Your task to perform on an android device: turn off javascript in the chrome app Image 0: 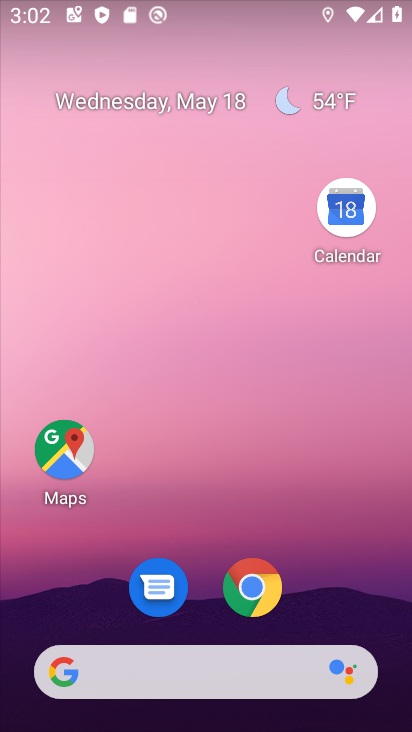
Step 0: drag from (185, 616) to (211, 97)
Your task to perform on an android device: turn off javascript in the chrome app Image 1: 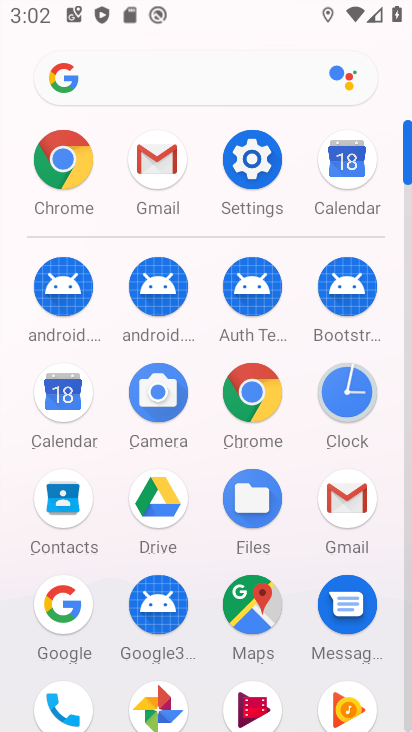
Step 1: click (244, 384)
Your task to perform on an android device: turn off javascript in the chrome app Image 2: 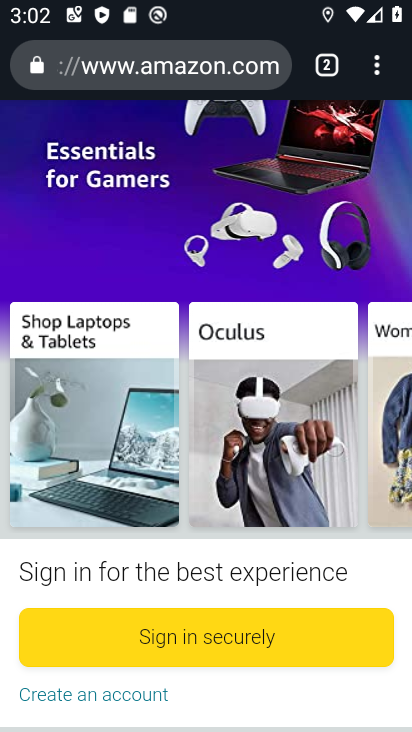
Step 2: click (373, 89)
Your task to perform on an android device: turn off javascript in the chrome app Image 3: 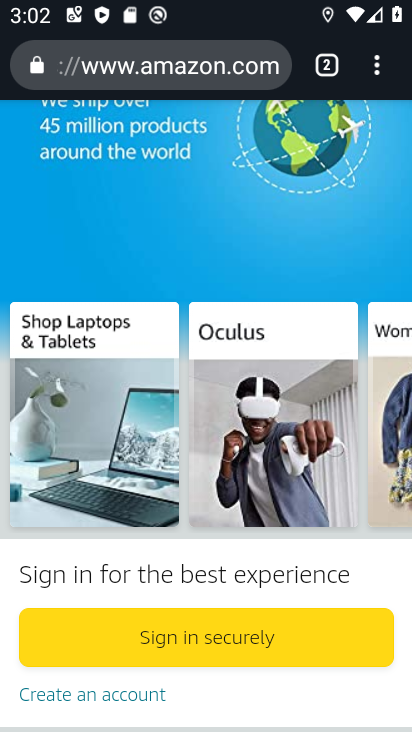
Step 3: click (365, 65)
Your task to perform on an android device: turn off javascript in the chrome app Image 4: 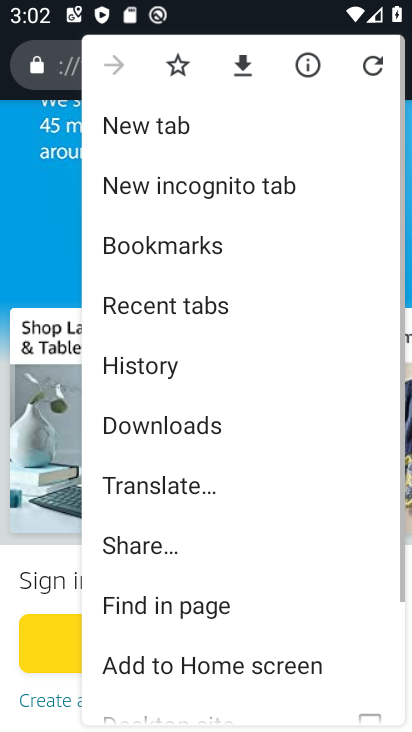
Step 4: drag from (135, 608) to (274, 161)
Your task to perform on an android device: turn off javascript in the chrome app Image 5: 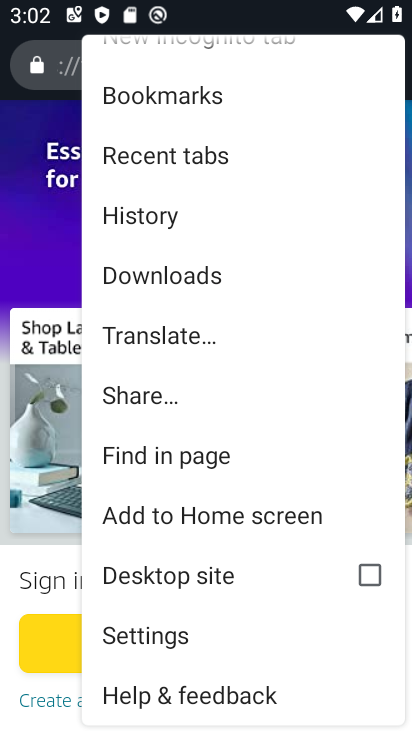
Step 5: click (180, 631)
Your task to perform on an android device: turn off javascript in the chrome app Image 6: 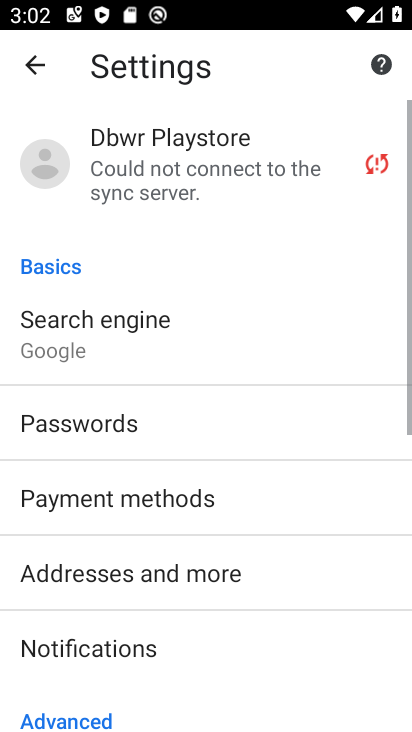
Step 6: drag from (162, 579) to (220, 158)
Your task to perform on an android device: turn off javascript in the chrome app Image 7: 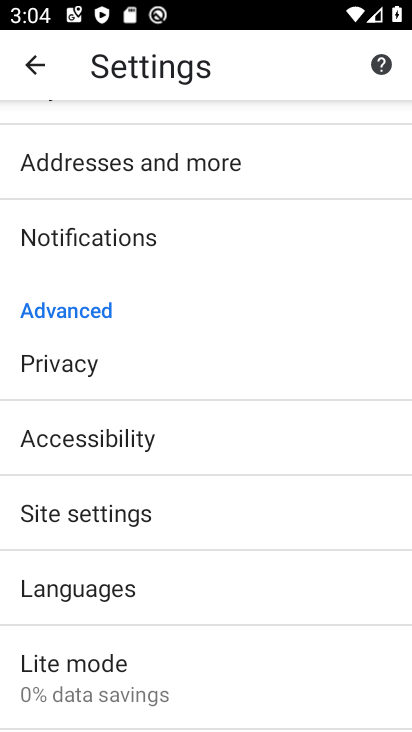
Step 7: drag from (194, 631) to (232, 213)
Your task to perform on an android device: turn off javascript in the chrome app Image 8: 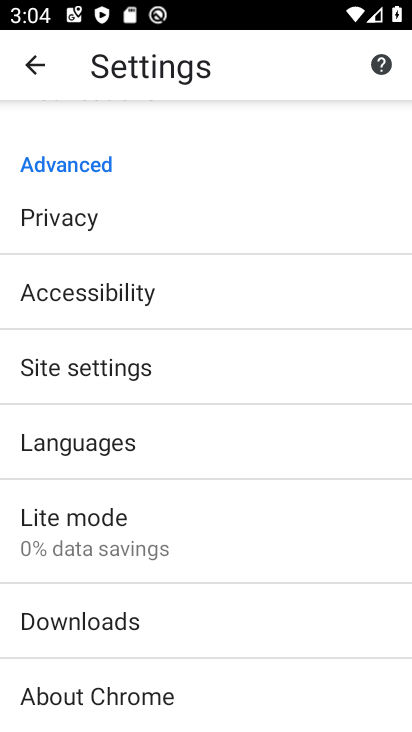
Step 8: click (123, 377)
Your task to perform on an android device: turn off javascript in the chrome app Image 9: 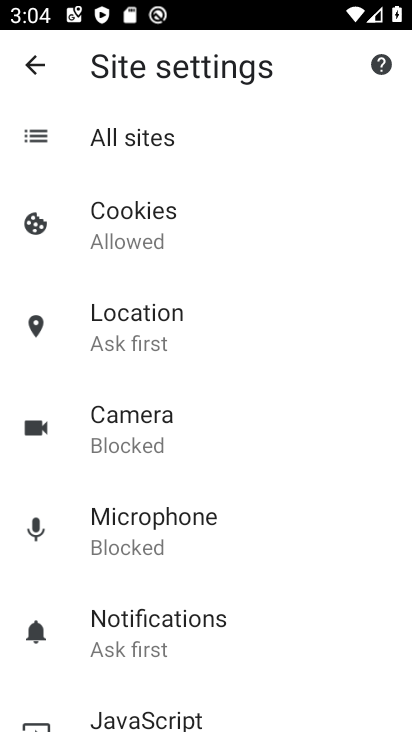
Step 9: drag from (220, 557) to (268, 186)
Your task to perform on an android device: turn off javascript in the chrome app Image 10: 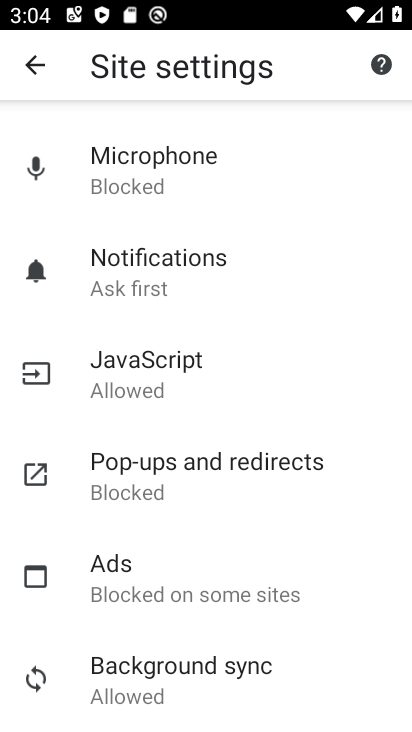
Step 10: click (165, 370)
Your task to perform on an android device: turn off javascript in the chrome app Image 11: 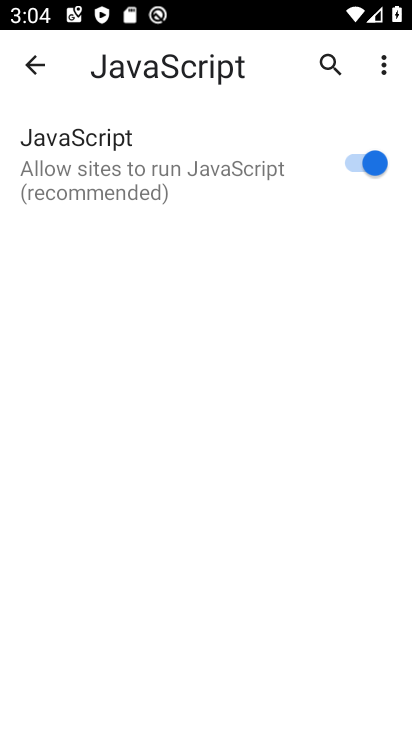
Step 11: drag from (240, 539) to (308, 245)
Your task to perform on an android device: turn off javascript in the chrome app Image 12: 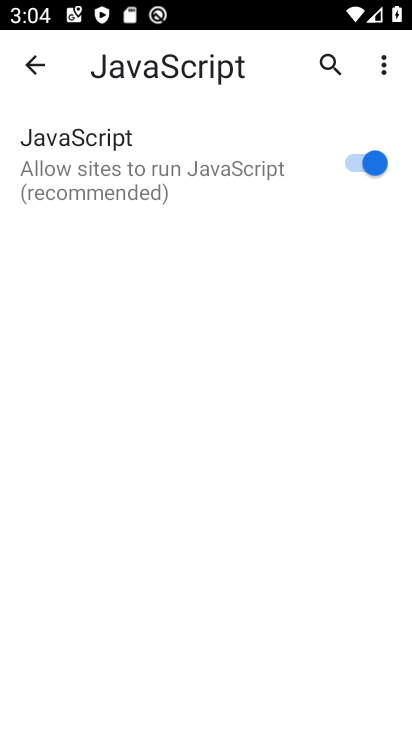
Step 12: click (367, 150)
Your task to perform on an android device: turn off javascript in the chrome app Image 13: 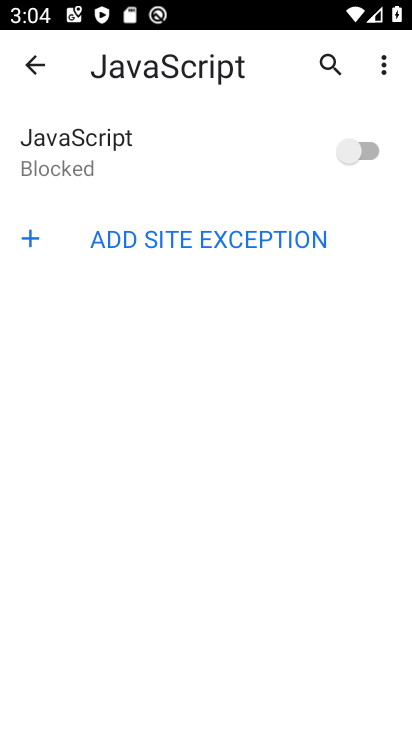
Step 13: task complete